Your task to perform on an android device: Go to settings Image 0: 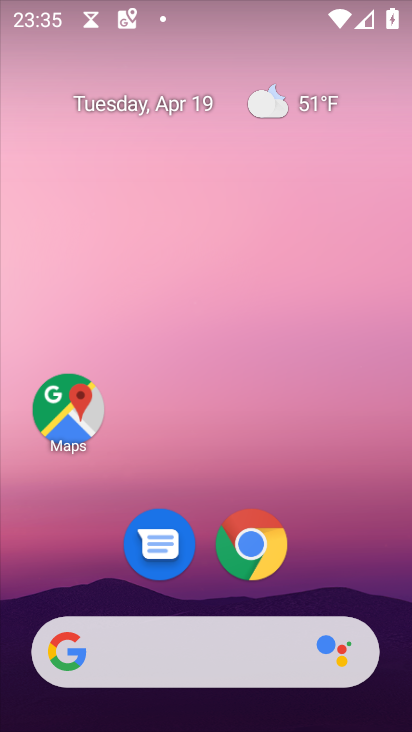
Step 0: drag from (319, 504) to (318, 174)
Your task to perform on an android device: Go to settings Image 1: 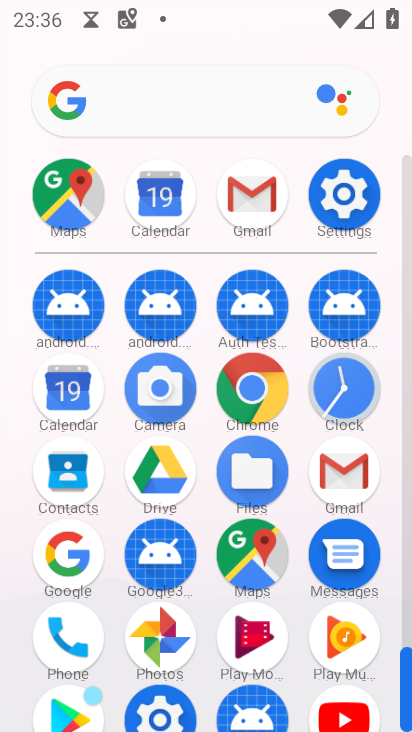
Step 1: click (341, 207)
Your task to perform on an android device: Go to settings Image 2: 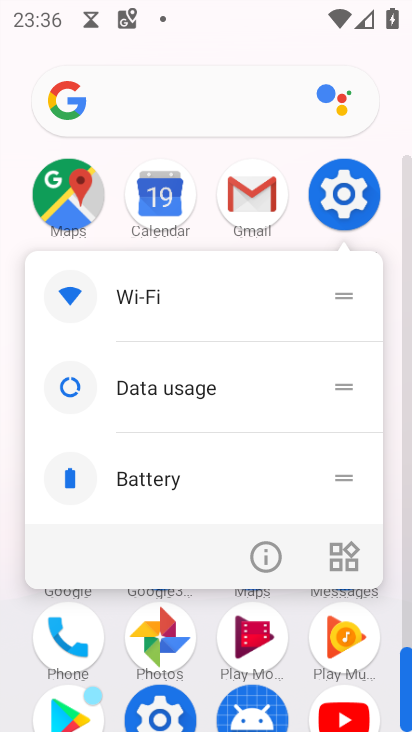
Step 2: click (341, 207)
Your task to perform on an android device: Go to settings Image 3: 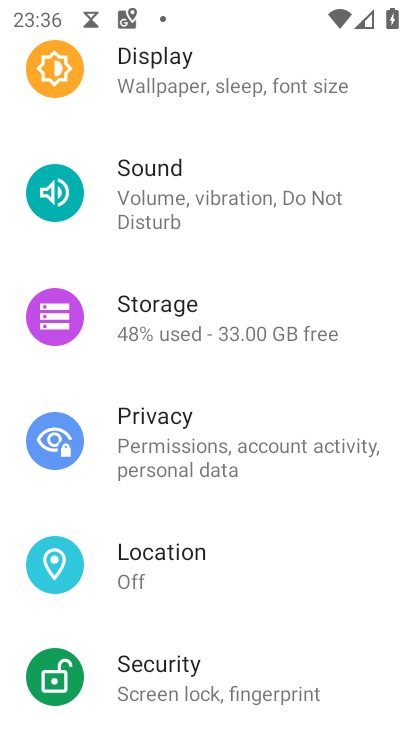
Step 3: task complete